Your task to perform on an android device: star an email in the gmail app Image 0: 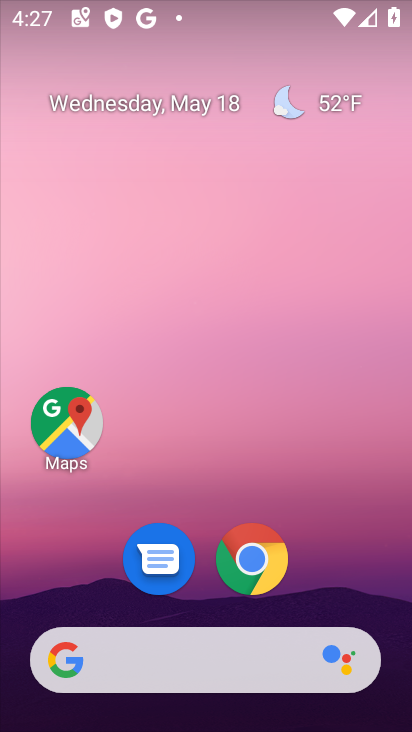
Step 0: drag from (219, 513) to (273, 73)
Your task to perform on an android device: star an email in the gmail app Image 1: 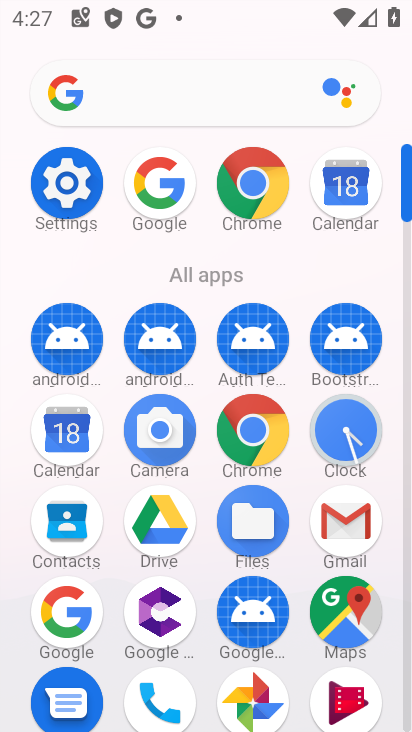
Step 1: click (343, 526)
Your task to perform on an android device: star an email in the gmail app Image 2: 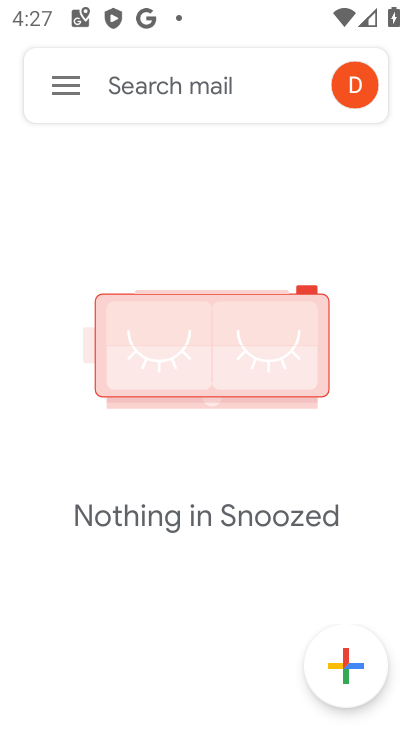
Step 2: click (64, 85)
Your task to perform on an android device: star an email in the gmail app Image 3: 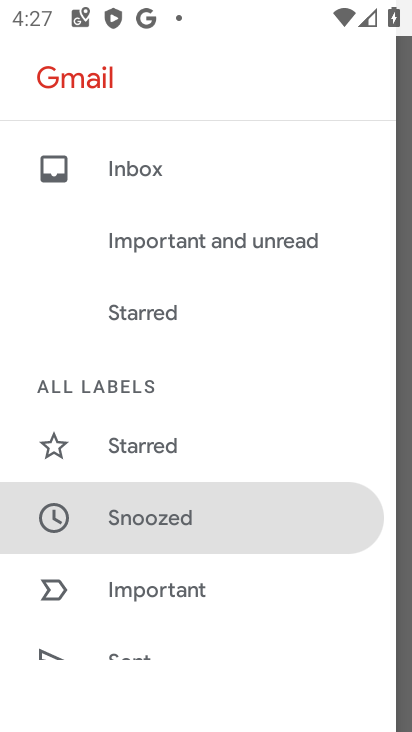
Step 3: drag from (164, 620) to (245, 106)
Your task to perform on an android device: star an email in the gmail app Image 4: 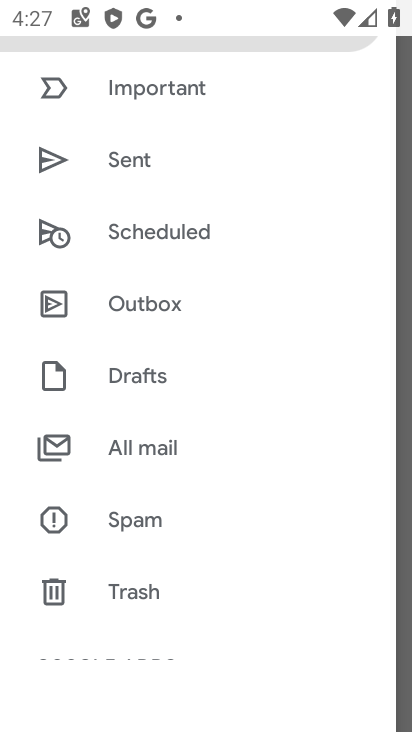
Step 4: click (154, 449)
Your task to perform on an android device: star an email in the gmail app Image 5: 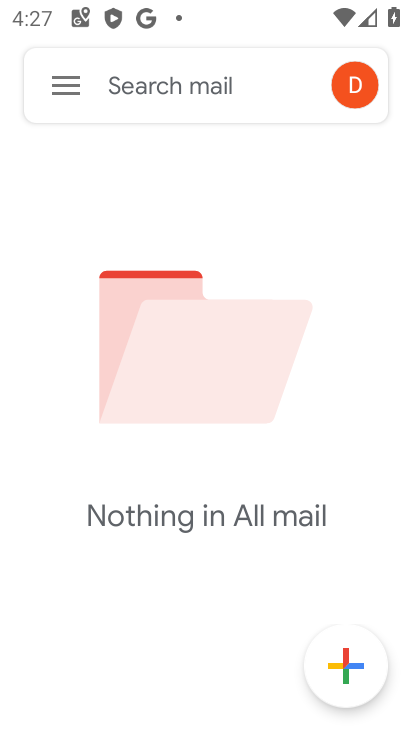
Step 5: task complete